Your task to perform on an android device: Open accessibility settings Image 0: 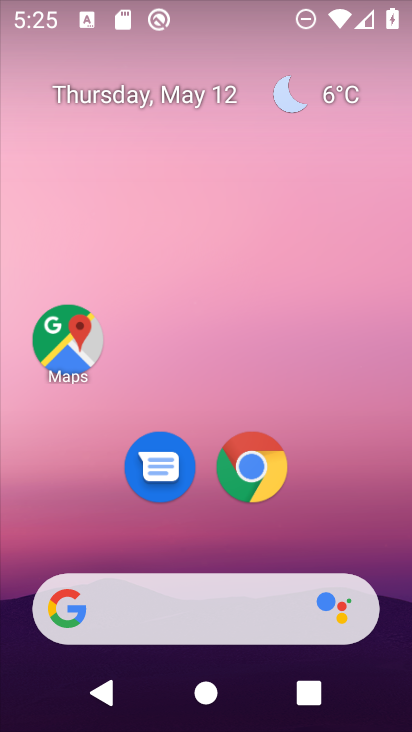
Step 0: drag from (378, 575) to (328, 45)
Your task to perform on an android device: Open accessibility settings Image 1: 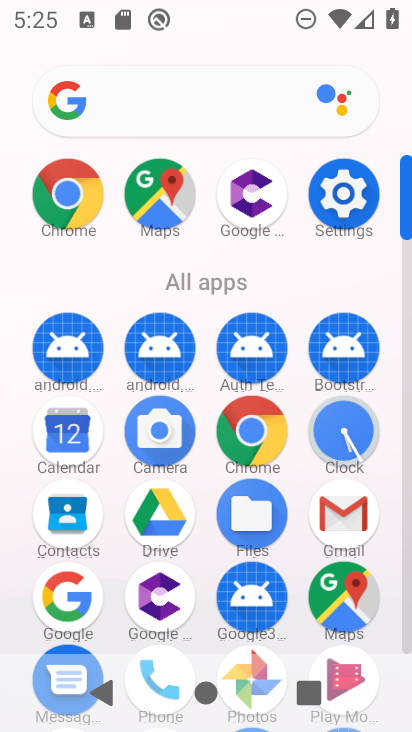
Step 1: click (348, 197)
Your task to perform on an android device: Open accessibility settings Image 2: 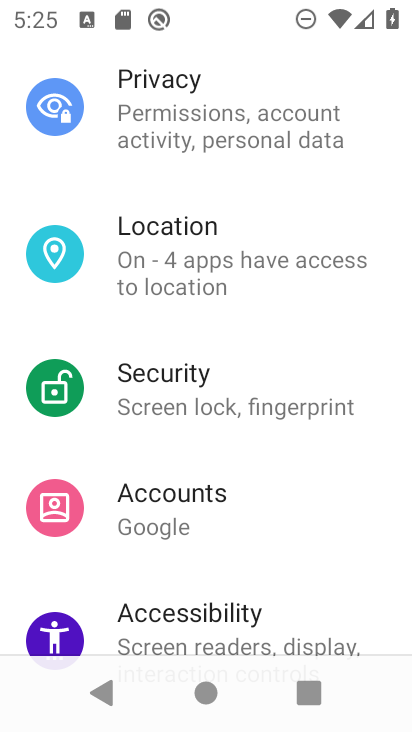
Step 2: click (201, 621)
Your task to perform on an android device: Open accessibility settings Image 3: 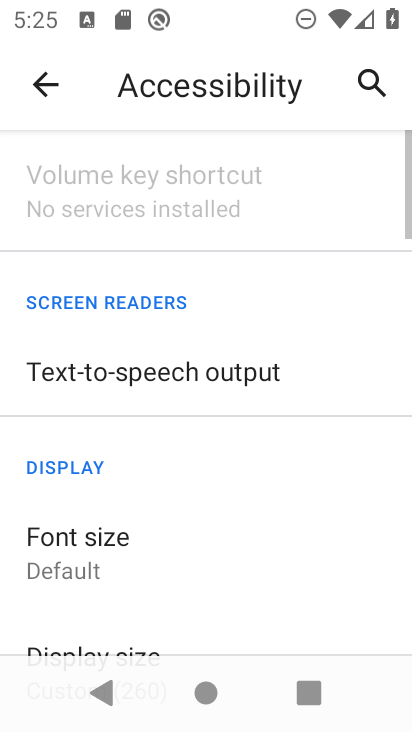
Step 3: task complete